Your task to perform on an android device: set default search engine in the chrome app Image 0: 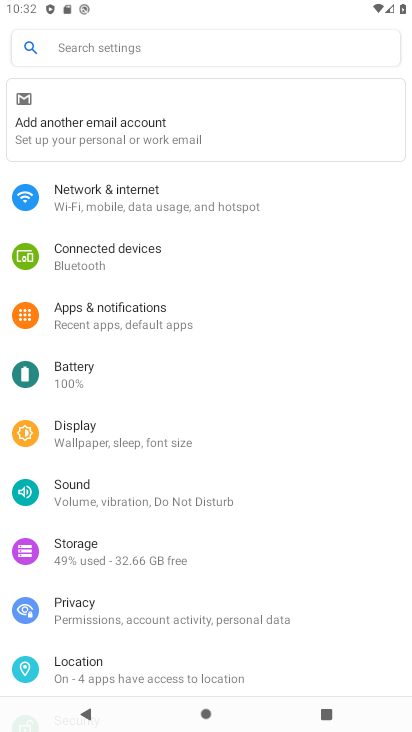
Step 0: press home button
Your task to perform on an android device: set default search engine in the chrome app Image 1: 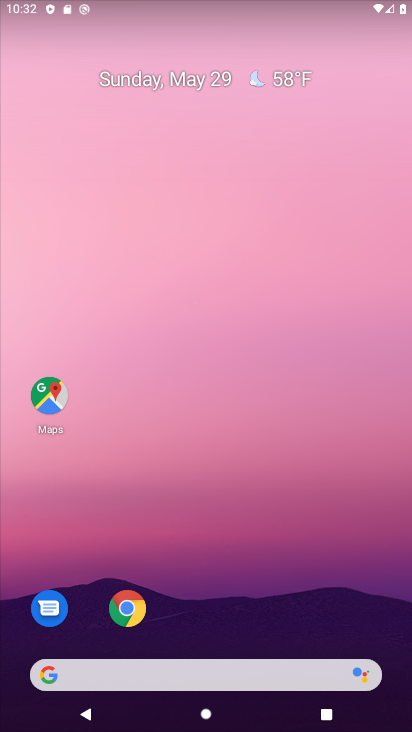
Step 1: click (134, 607)
Your task to perform on an android device: set default search engine in the chrome app Image 2: 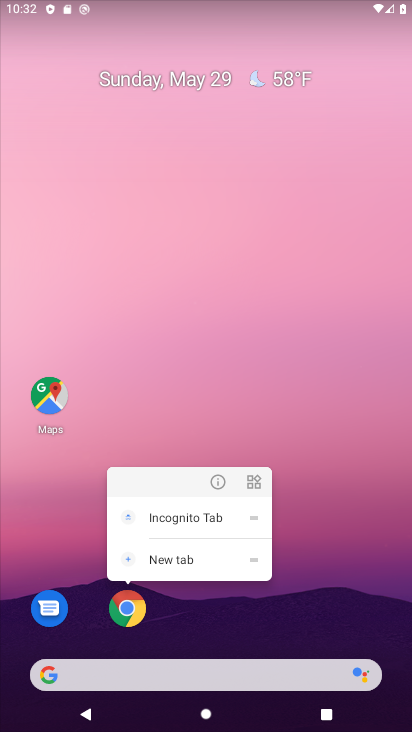
Step 2: click (132, 605)
Your task to perform on an android device: set default search engine in the chrome app Image 3: 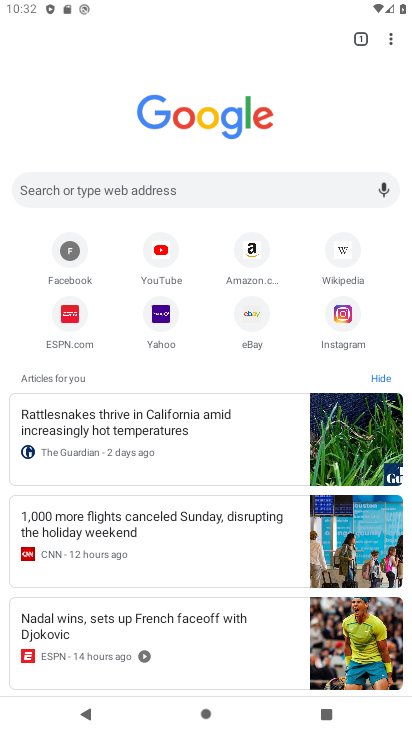
Step 3: click (390, 39)
Your task to perform on an android device: set default search engine in the chrome app Image 4: 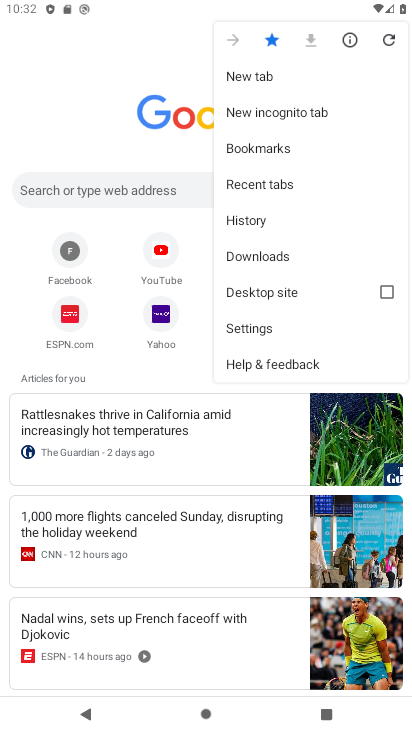
Step 4: click (265, 327)
Your task to perform on an android device: set default search engine in the chrome app Image 5: 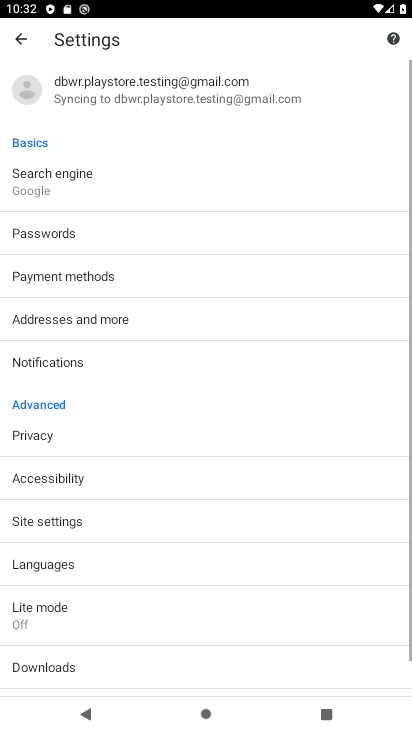
Step 5: click (62, 186)
Your task to perform on an android device: set default search engine in the chrome app Image 6: 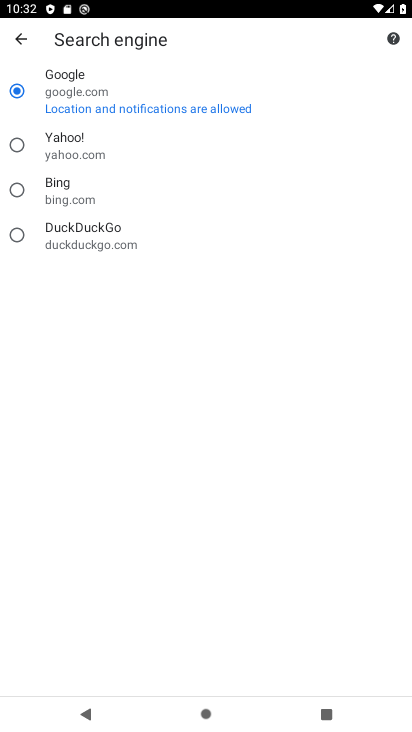
Step 6: task complete